Your task to perform on an android device: Show me the alarms in the clock app Image 0: 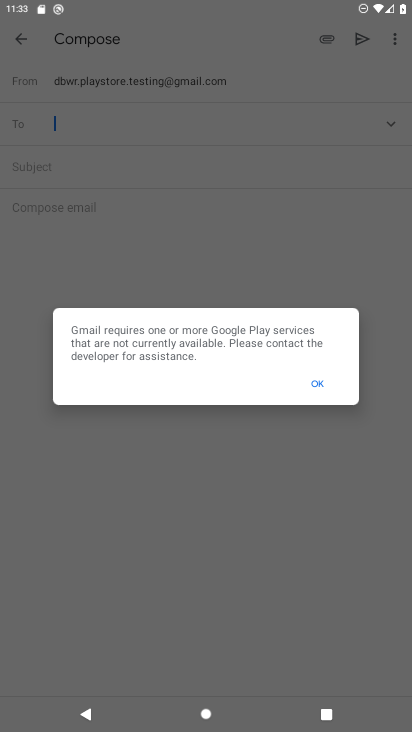
Step 0: press home button
Your task to perform on an android device: Show me the alarms in the clock app Image 1: 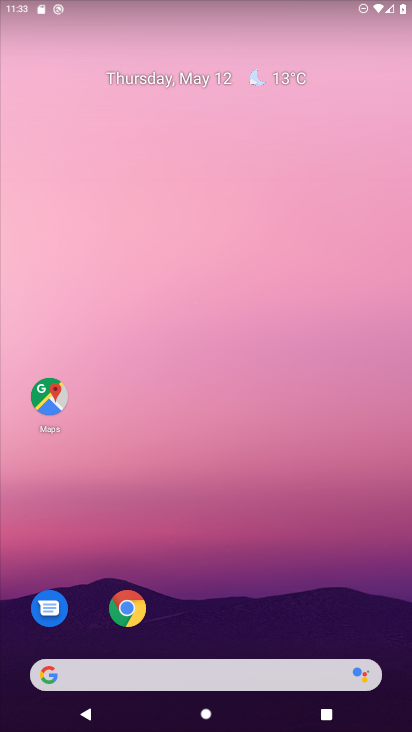
Step 1: drag from (234, 623) to (226, 87)
Your task to perform on an android device: Show me the alarms in the clock app Image 2: 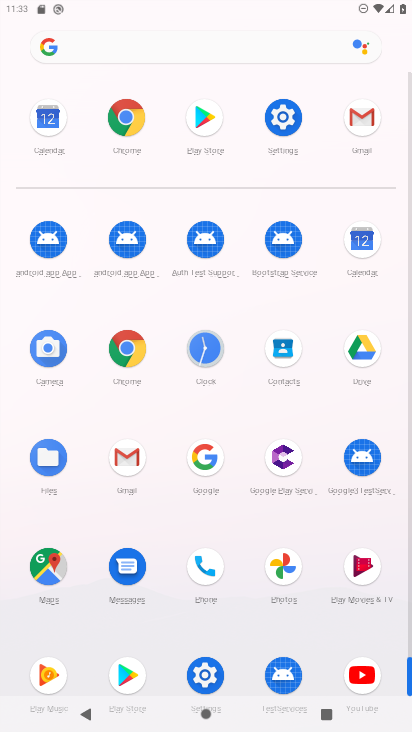
Step 2: click (200, 345)
Your task to perform on an android device: Show me the alarms in the clock app Image 3: 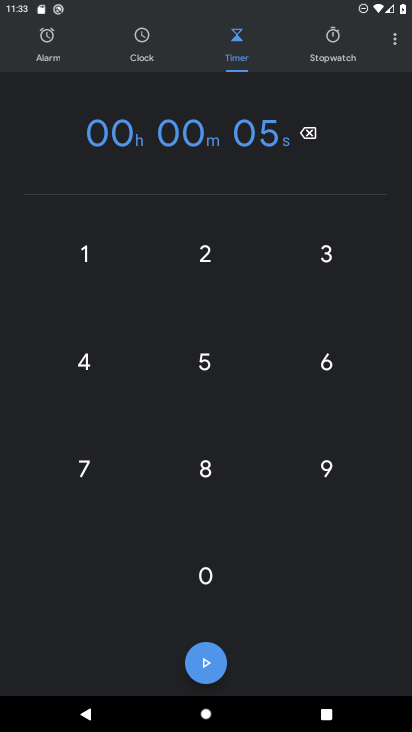
Step 3: click (40, 41)
Your task to perform on an android device: Show me the alarms in the clock app Image 4: 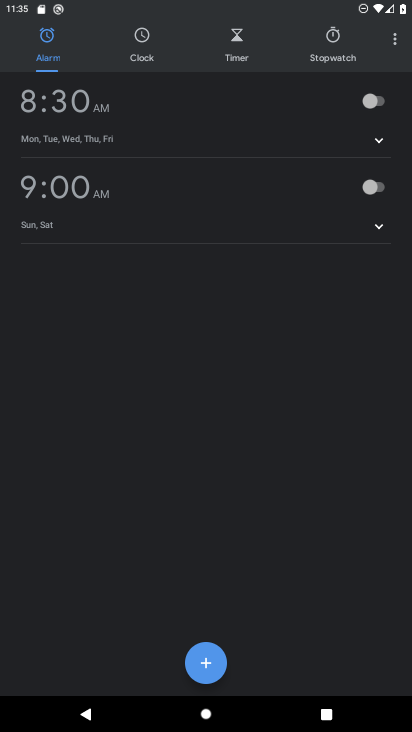
Step 4: task complete